Your task to perform on an android device: open app "Google Translate" Image 0: 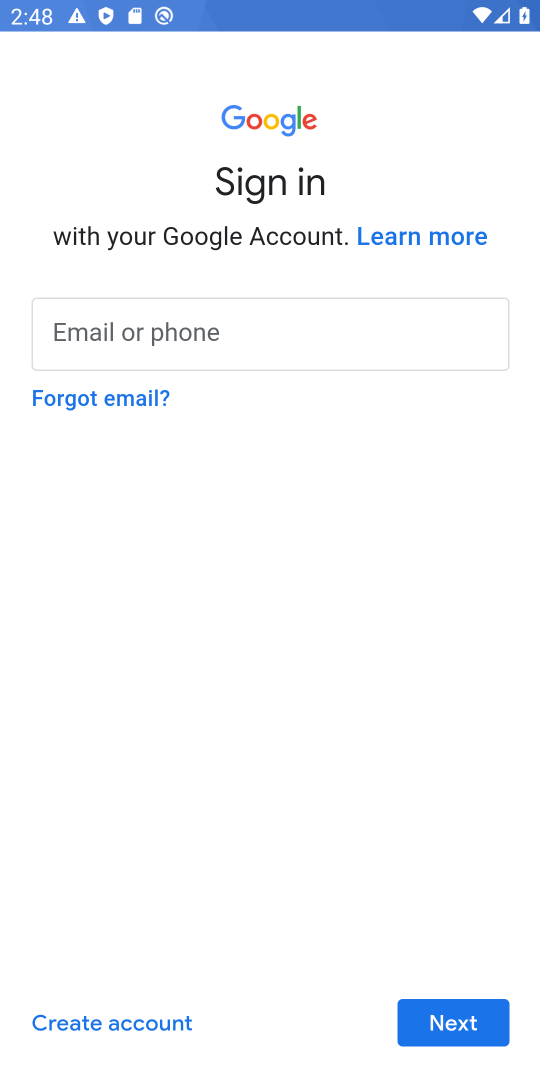
Step 0: press home button
Your task to perform on an android device: open app "Google Translate" Image 1: 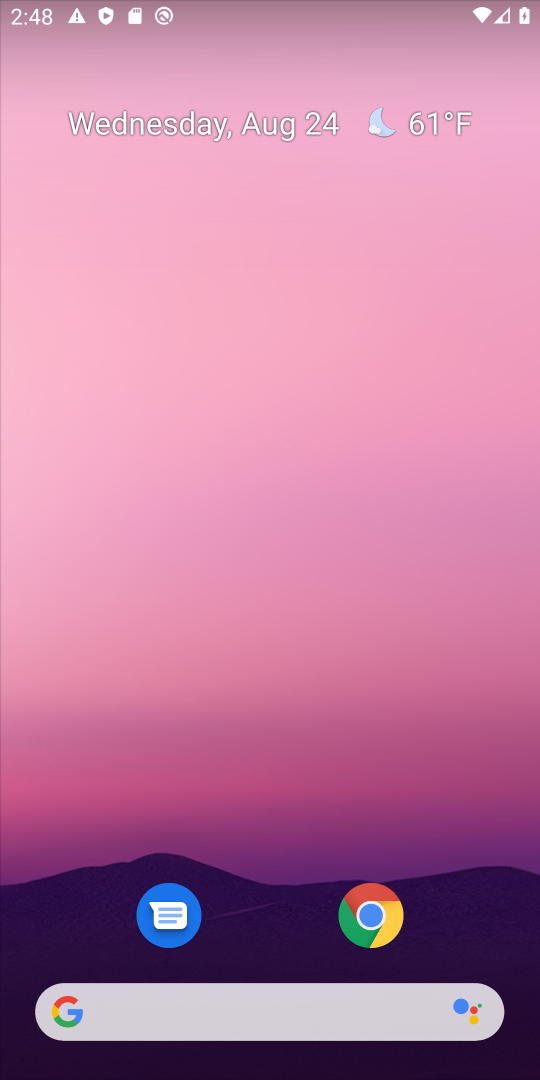
Step 1: drag from (270, 834) to (273, 189)
Your task to perform on an android device: open app "Google Translate" Image 2: 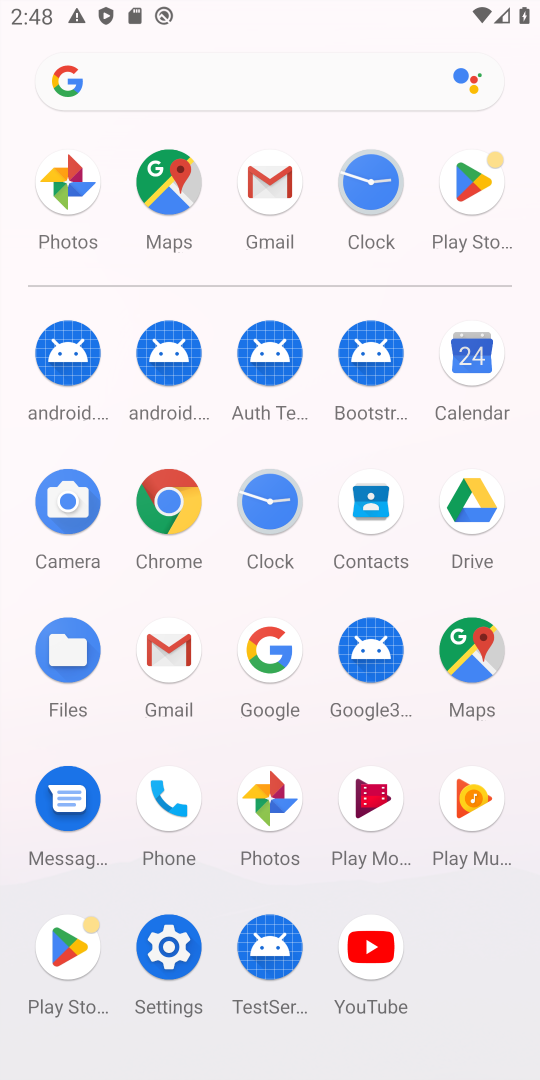
Step 2: click (449, 185)
Your task to perform on an android device: open app "Google Translate" Image 3: 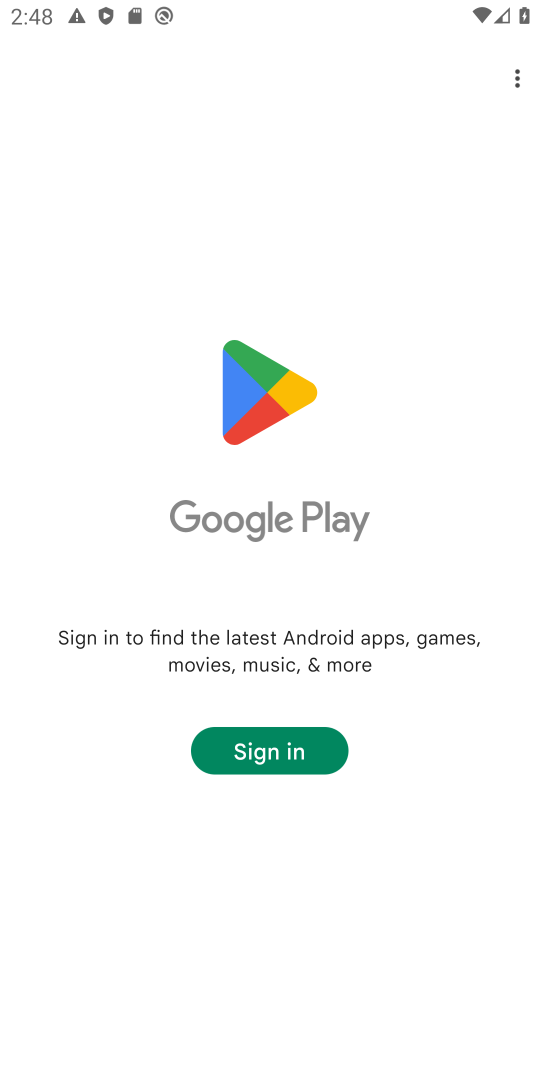
Step 3: task complete